Your task to perform on an android device: Go to internet settings Image 0: 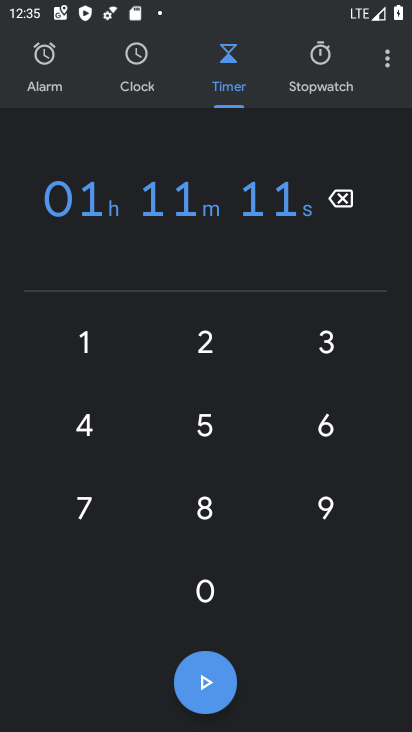
Step 0: press home button
Your task to perform on an android device: Go to internet settings Image 1: 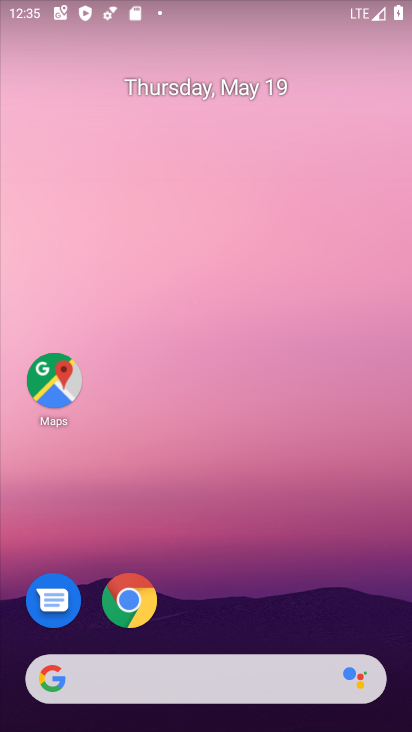
Step 1: drag from (232, 530) to (144, 24)
Your task to perform on an android device: Go to internet settings Image 2: 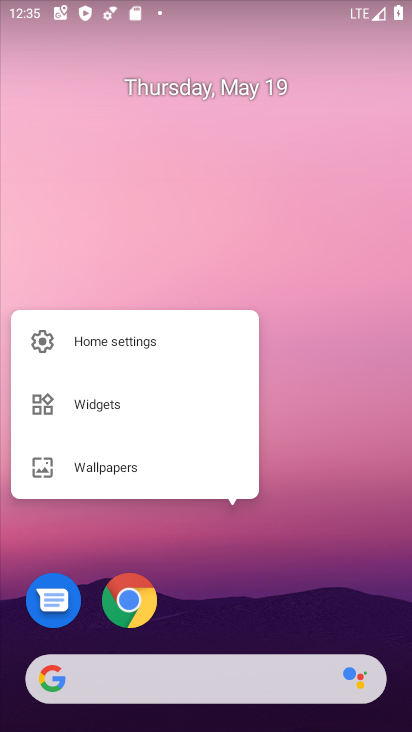
Step 2: click (319, 440)
Your task to perform on an android device: Go to internet settings Image 3: 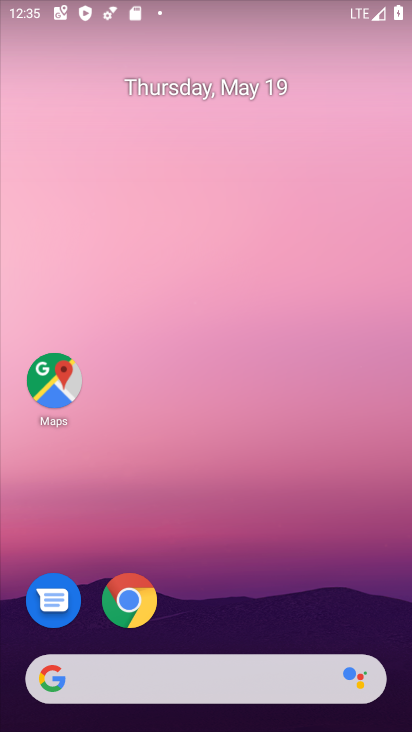
Step 3: drag from (260, 584) to (227, 137)
Your task to perform on an android device: Go to internet settings Image 4: 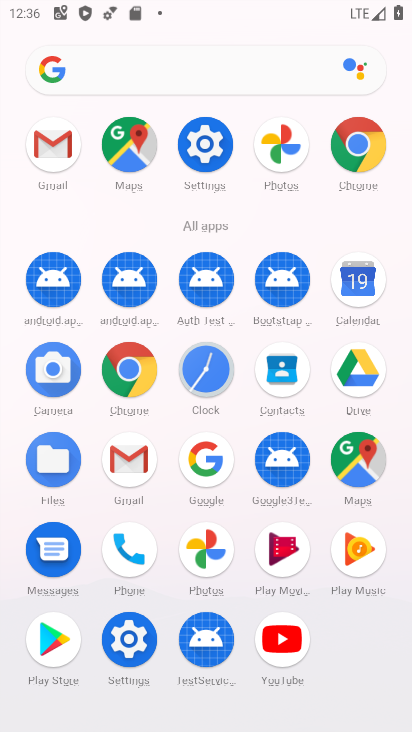
Step 4: click (209, 147)
Your task to perform on an android device: Go to internet settings Image 5: 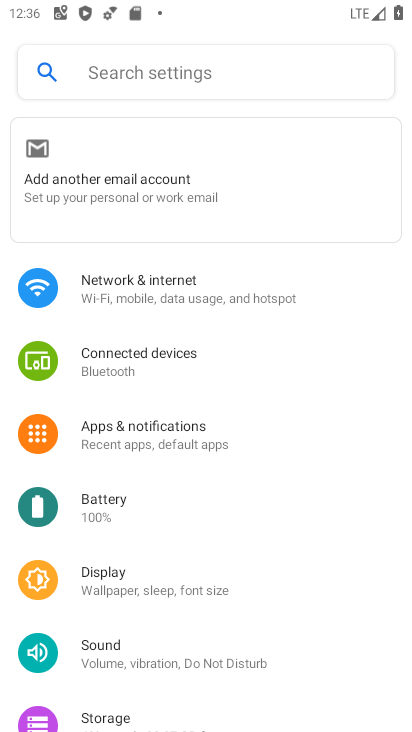
Step 5: click (158, 278)
Your task to perform on an android device: Go to internet settings Image 6: 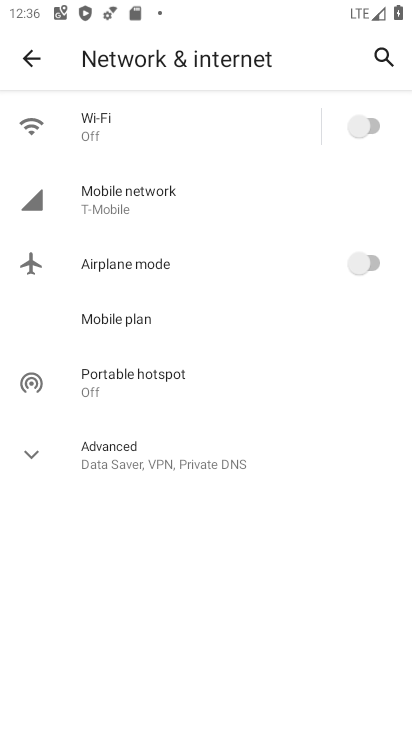
Step 6: click (152, 185)
Your task to perform on an android device: Go to internet settings Image 7: 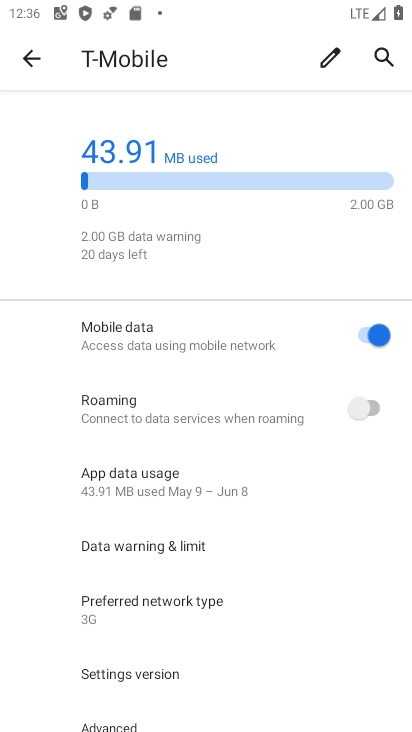
Step 7: task complete